Your task to perform on an android device: turn off improve location accuracy Image 0: 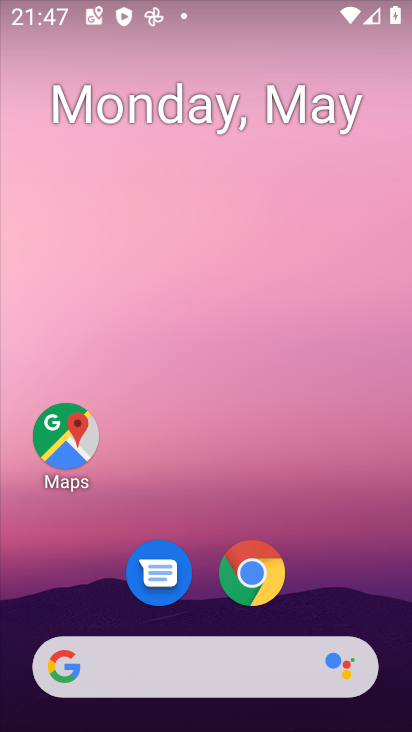
Step 0: drag from (397, 578) to (236, 9)
Your task to perform on an android device: turn off improve location accuracy Image 1: 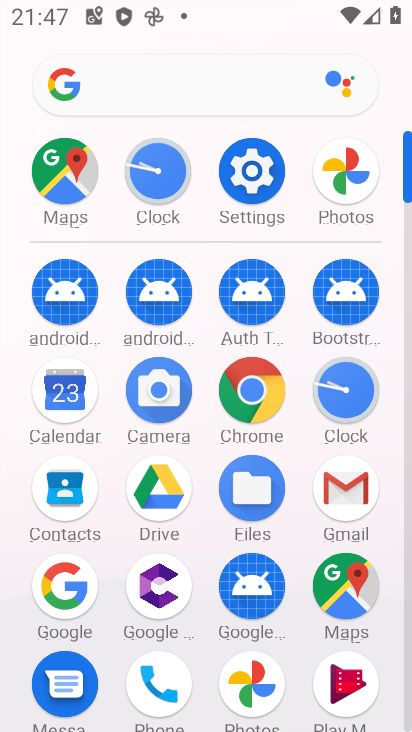
Step 1: click (243, 184)
Your task to perform on an android device: turn off improve location accuracy Image 2: 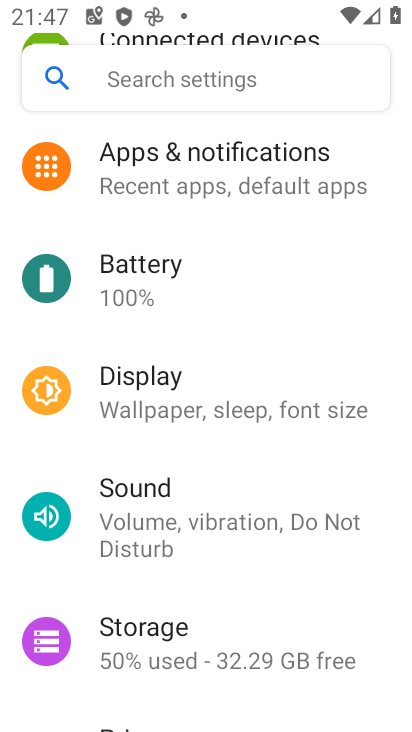
Step 2: drag from (214, 614) to (214, 311)
Your task to perform on an android device: turn off improve location accuracy Image 3: 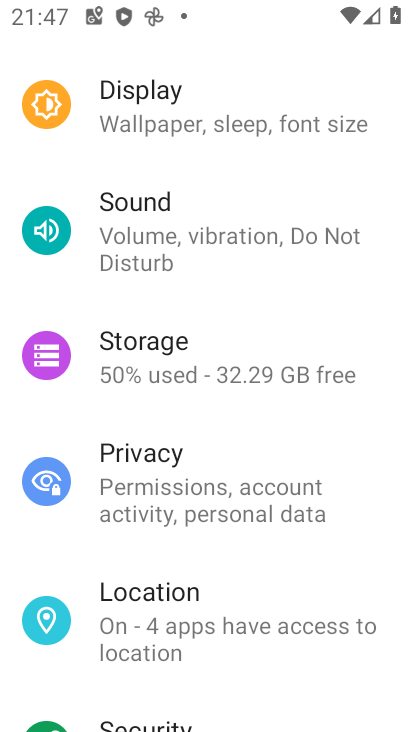
Step 3: click (191, 488)
Your task to perform on an android device: turn off improve location accuracy Image 4: 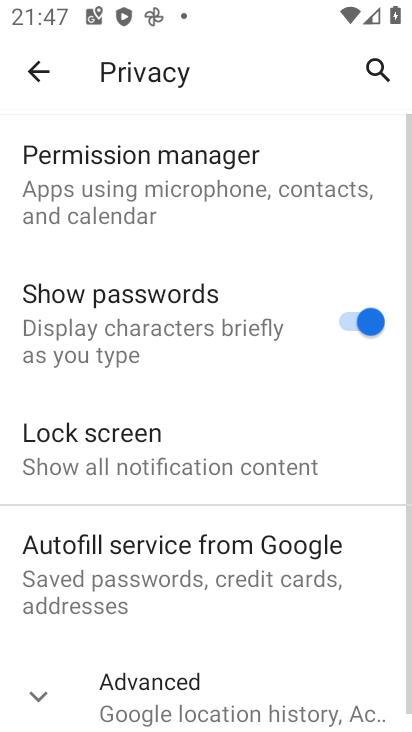
Step 4: click (336, 339)
Your task to perform on an android device: turn off improve location accuracy Image 5: 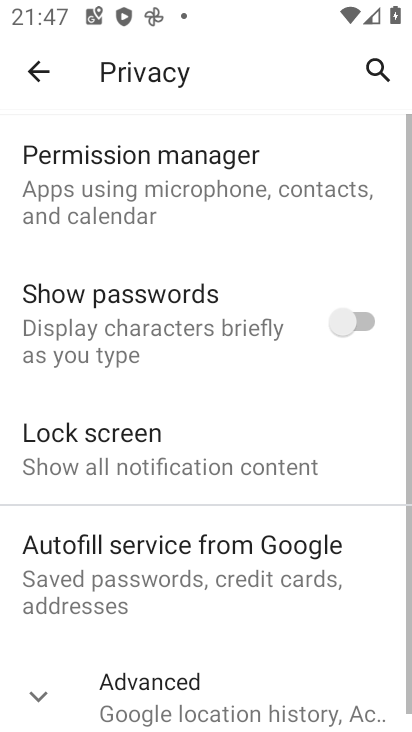
Step 5: task complete